Your task to perform on an android device: Go to Wikipedia Image 0: 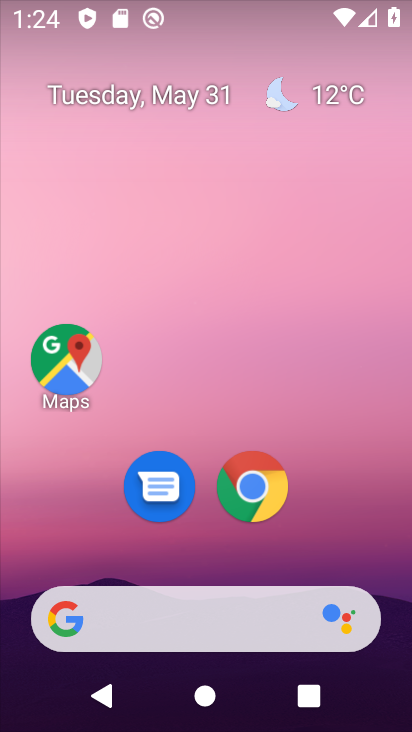
Step 0: click (249, 490)
Your task to perform on an android device: Go to Wikipedia Image 1: 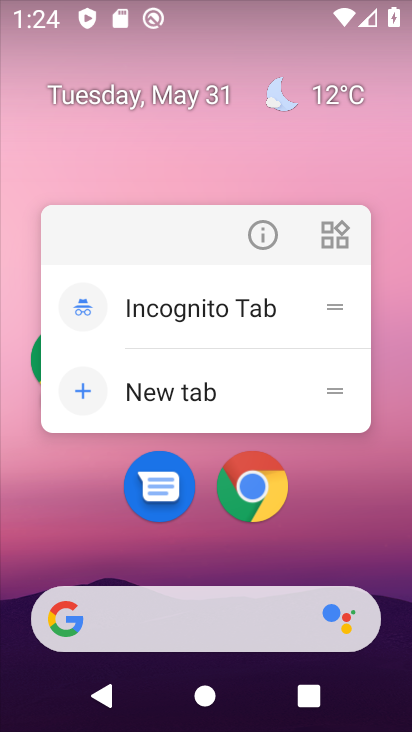
Step 1: click (254, 499)
Your task to perform on an android device: Go to Wikipedia Image 2: 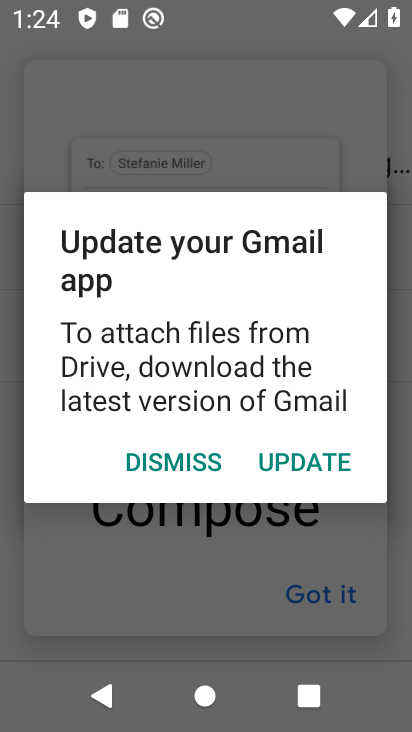
Step 2: press home button
Your task to perform on an android device: Go to Wikipedia Image 3: 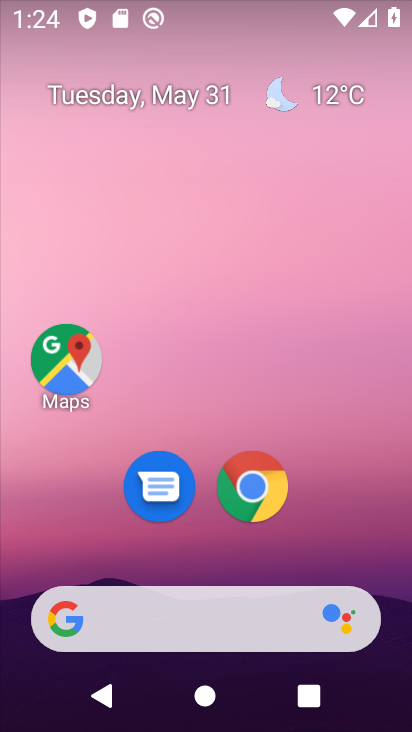
Step 3: click (251, 500)
Your task to perform on an android device: Go to Wikipedia Image 4: 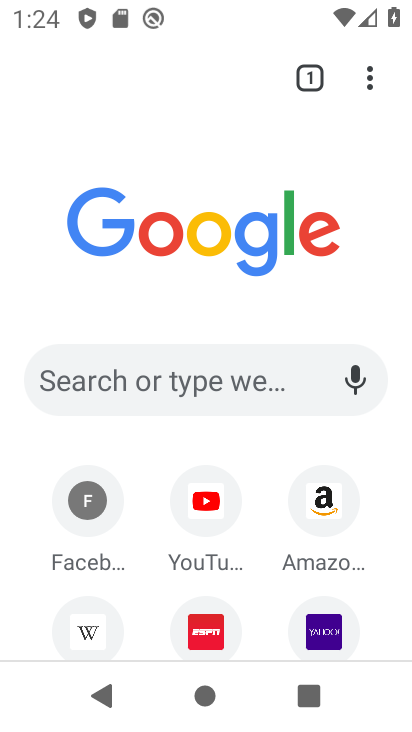
Step 4: click (84, 641)
Your task to perform on an android device: Go to Wikipedia Image 5: 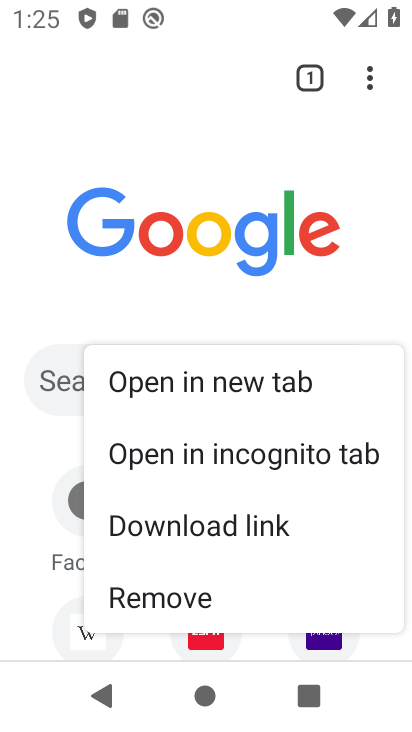
Step 5: click (68, 638)
Your task to perform on an android device: Go to Wikipedia Image 6: 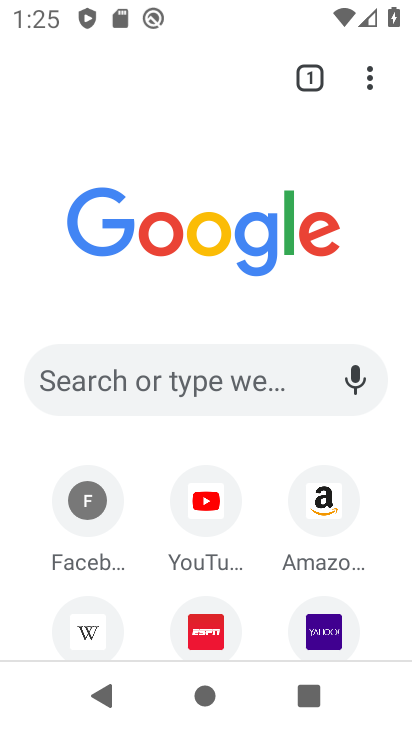
Step 6: click (88, 635)
Your task to perform on an android device: Go to Wikipedia Image 7: 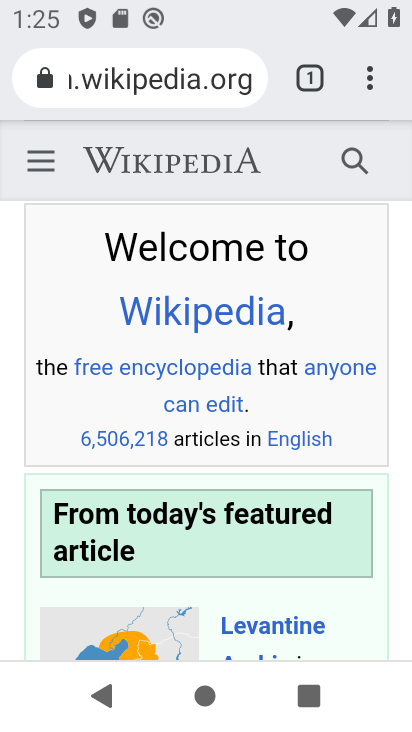
Step 7: task complete